Your task to perform on an android device: find which apps use the phone's location Image 0: 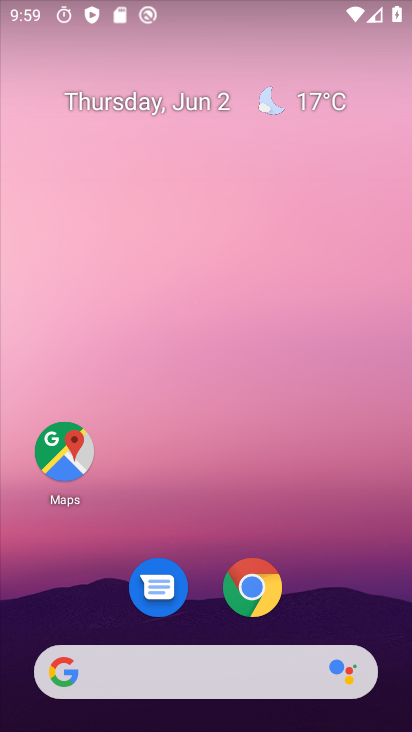
Step 0: press home button
Your task to perform on an android device: find which apps use the phone's location Image 1: 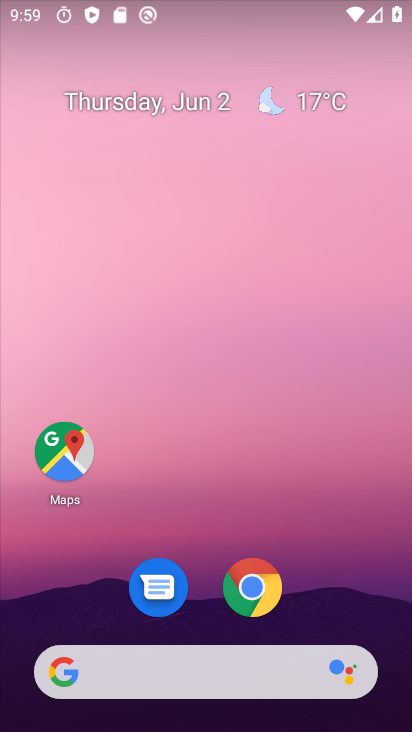
Step 1: drag from (202, 624) to (262, 101)
Your task to perform on an android device: find which apps use the phone's location Image 2: 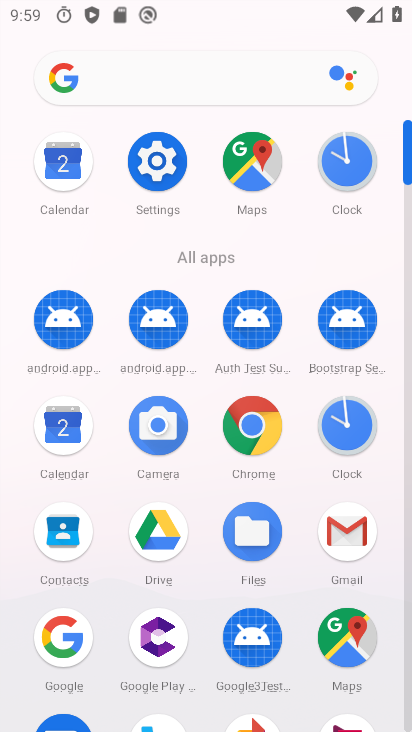
Step 2: click (154, 154)
Your task to perform on an android device: find which apps use the phone's location Image 3: 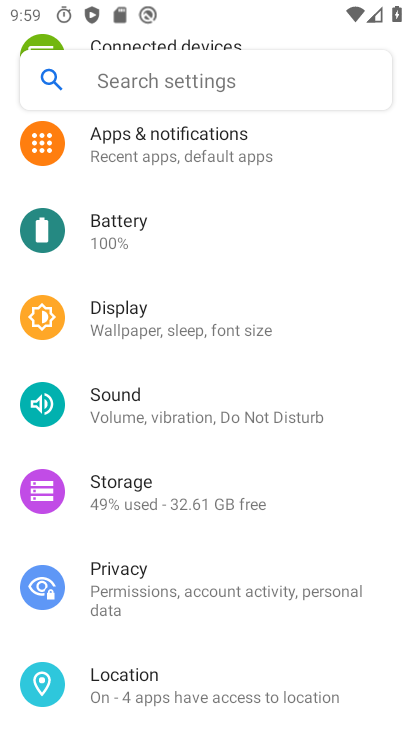
Step 3: click (186, 683)
Your task to perform on an android device: find which apps use the phone's location Image 4: 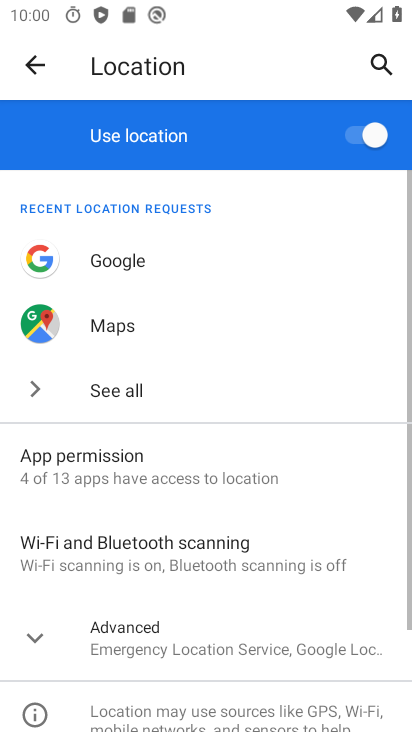
Step 4: click (132, 469)
Your task to perform on an android device: find which apps use the phone's location Image 5: 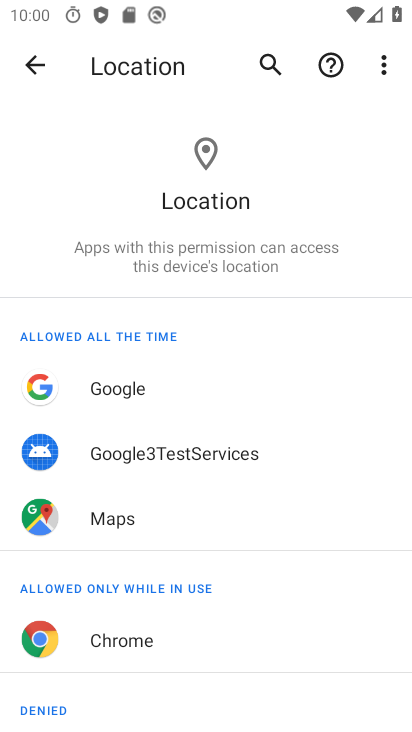
Step 5: task complete